Your task to perform on an android device: What is the recent news? Image 0: 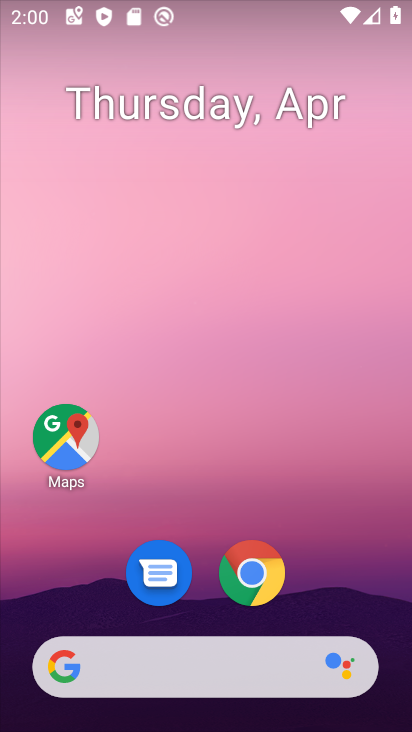
Step 0: drag from (358, 601) to (353, 29)
Your task to perform on an android device: What is the recent news? Image 1: 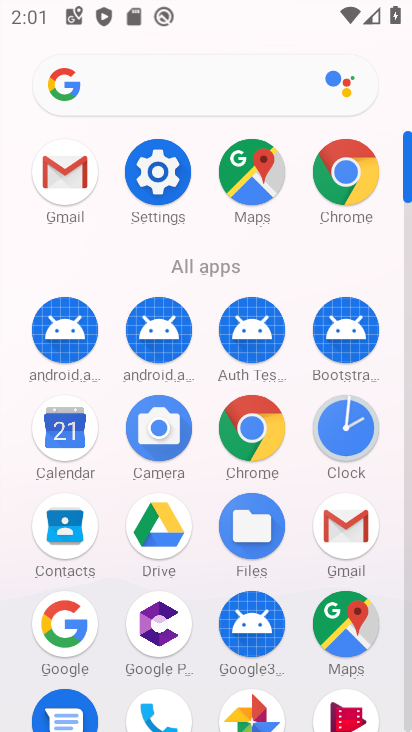
Step 1: click (239, 432)
Your task to perform on an android device: What is the recent news? Image 2: 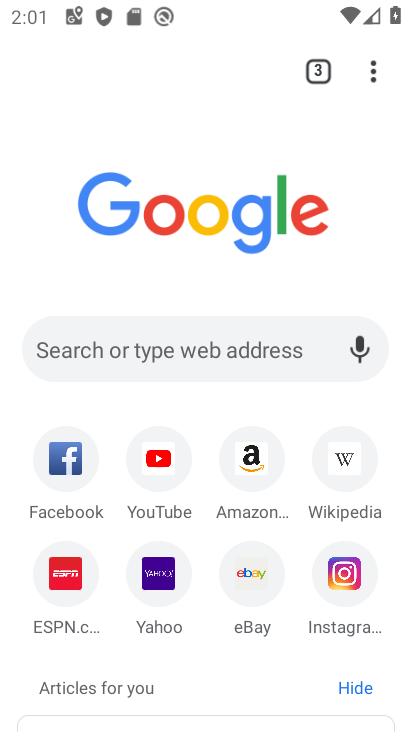
Step 2: drag from (201, 632) to (198, 108)
Your task to perform on an android device: What is the recent news? Image 3: 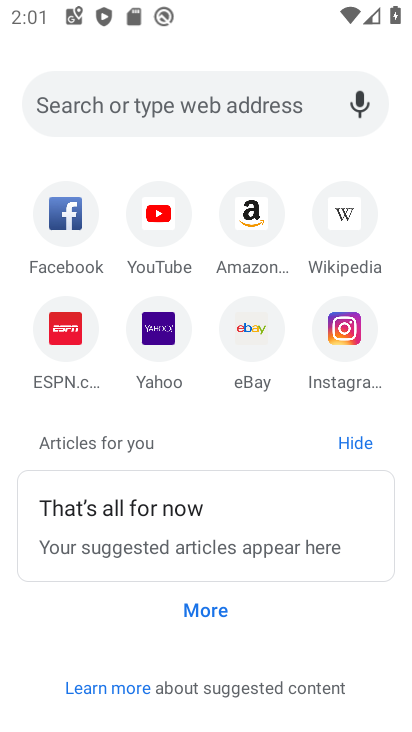
Step 3: click (199, 610)
Your task to perform on an android device: What is the recent news? Image 4: 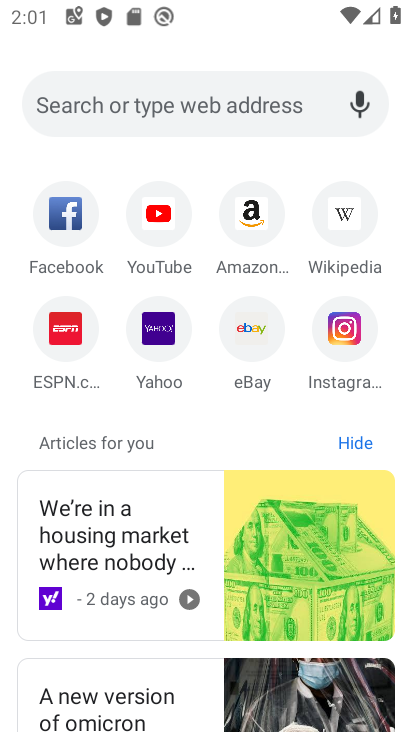
Step 4: click (103, 531)
Your task to perform on an android device: What is the recent news? Image 5: 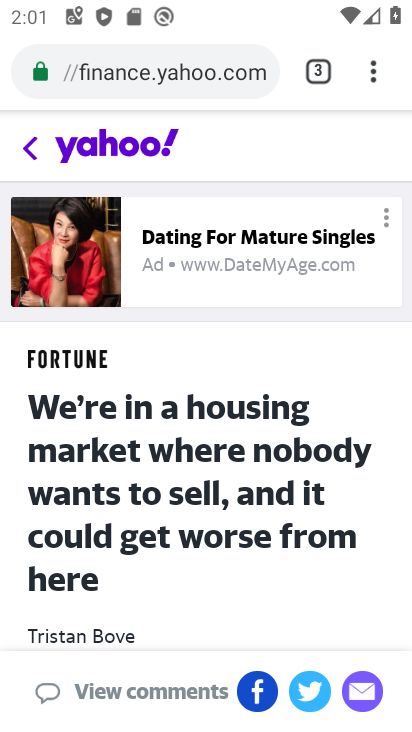
Step 5: task complete